Your task to perform on an android device: Open the web browser Image 0: 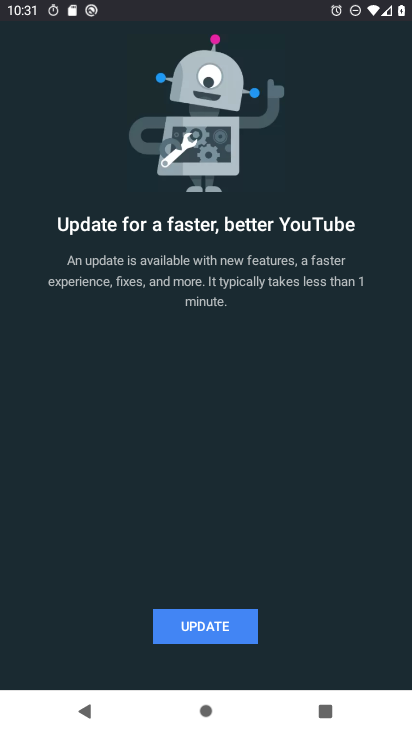
Step 0: press back button
Your task to perform on an android device: Open the web browser Image 1: 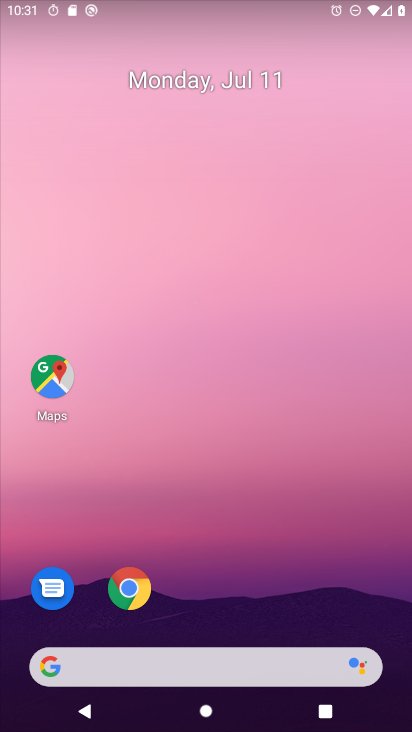
Step 1: click (132, 588)
Your task to perform on an android device: Open the web browser Image 2: 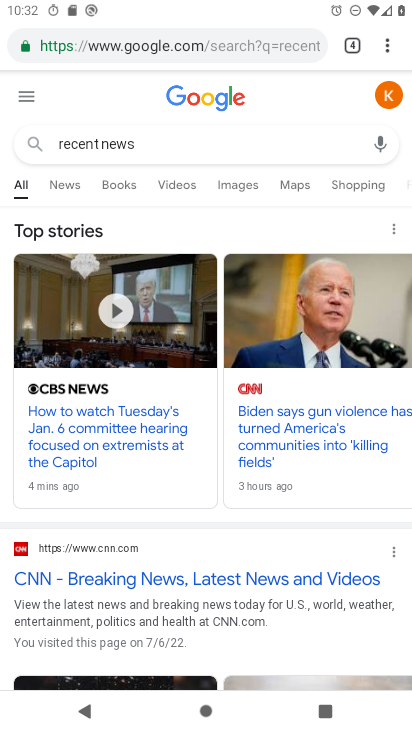
Step 2: task complete